Your task to perform on an android device: find snoozed emails in the gmail app Image 0: 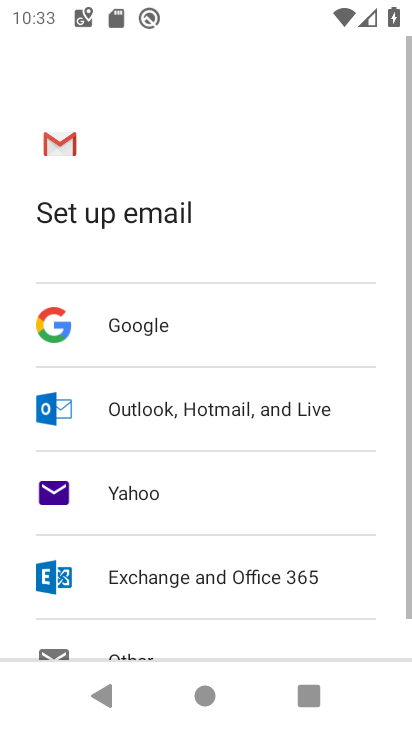
Step 0: press back button
Your task to perform on an android device: find snoozed emails in the gmail app Image 1: 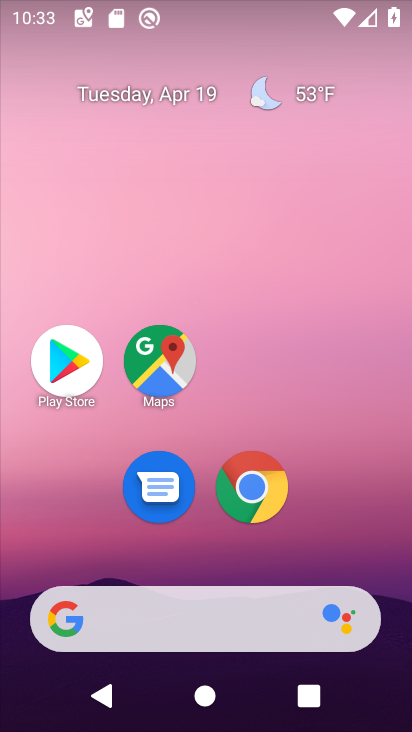
Step 1: drag from (373, 560) to (256, 19)
Your task to perform on an android device: find snoozed emails in the gmail app Image 2: 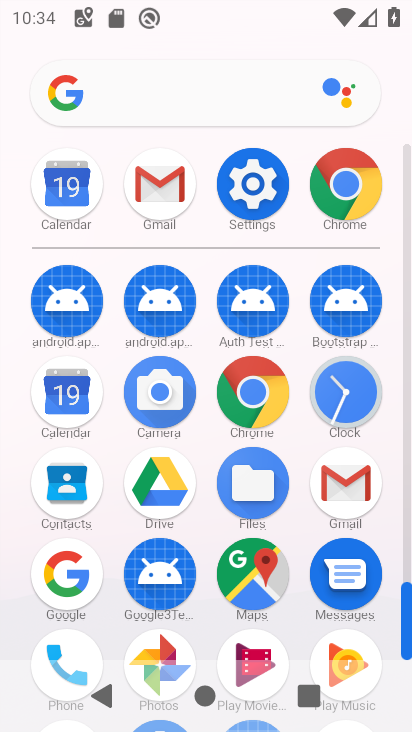
Step 2: click (158, 177)
Your task to perform on an android device: find snoozed emails in the gmail app Image 3: 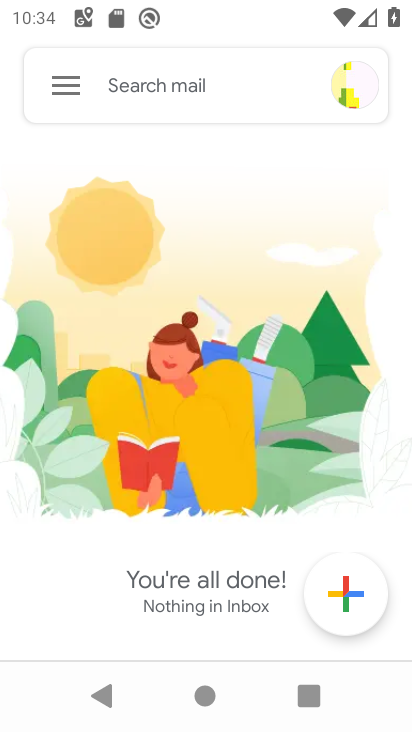
Step 3: click (73, 81)
Your task to perform on an android device: find snoozed emails in the gmail app Image 4: 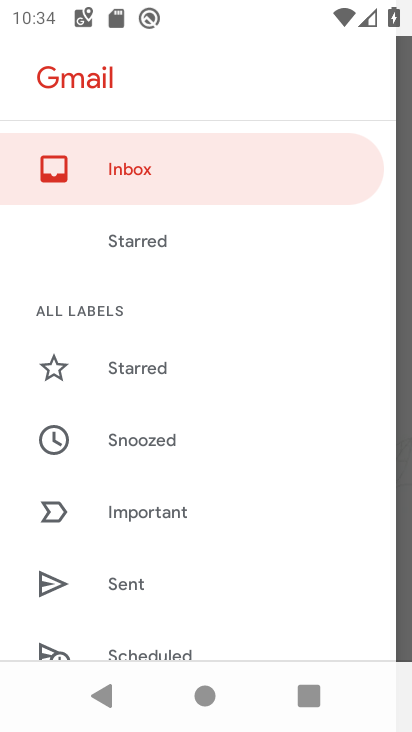
Step 4: click (185, 445)
Your task to perform on an android device: find snoozed emails in the gmail app Image 5: 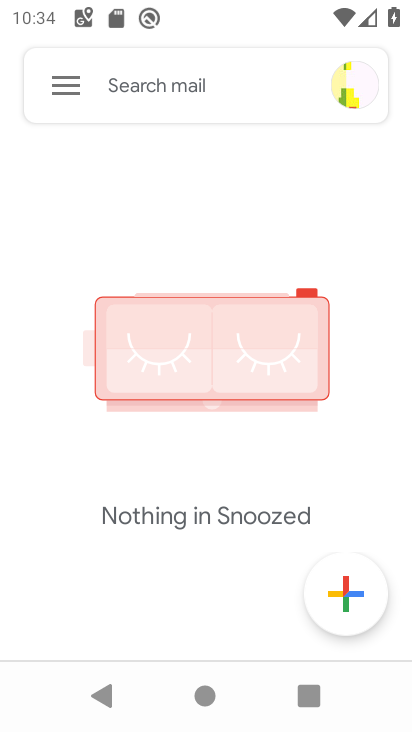
Step 5: task complete